Your task to perform on an android device: Find coffee shops on Maps Image 0: 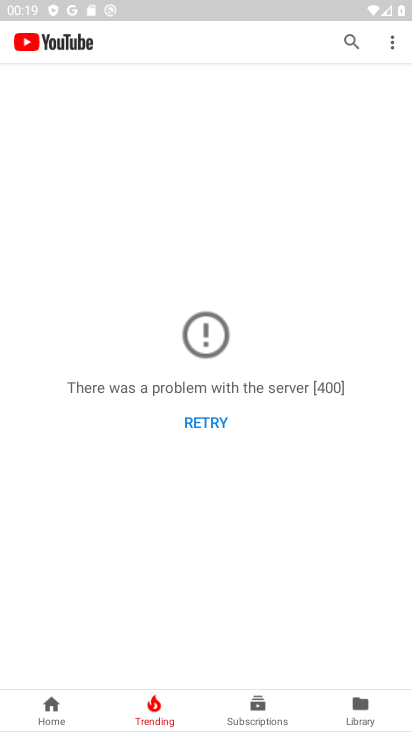
Step 0: press home button
Your task to perform on an android device: Find coffee shops on Maps Image 1: 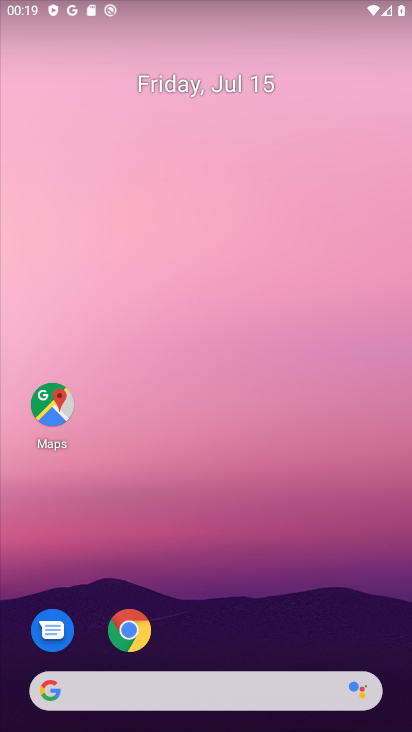
Step 1: click (58, 432)
Your task to perform on an android device: Find coffee shops on Maps Image 2: 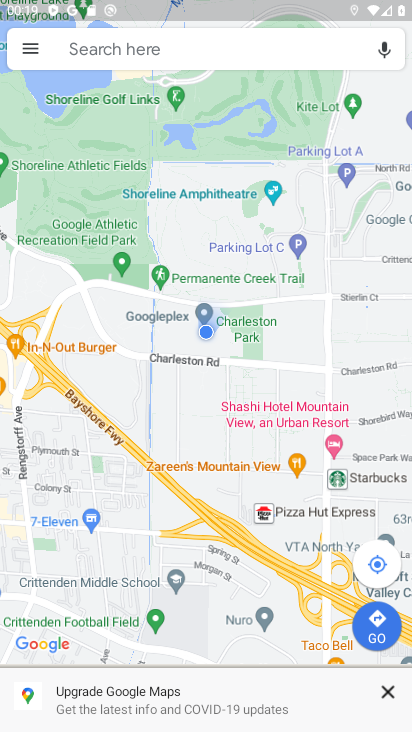
Step 2: click (91, 40)
Your task to perform on an android device: Find coffee shops on Maps Image 3: 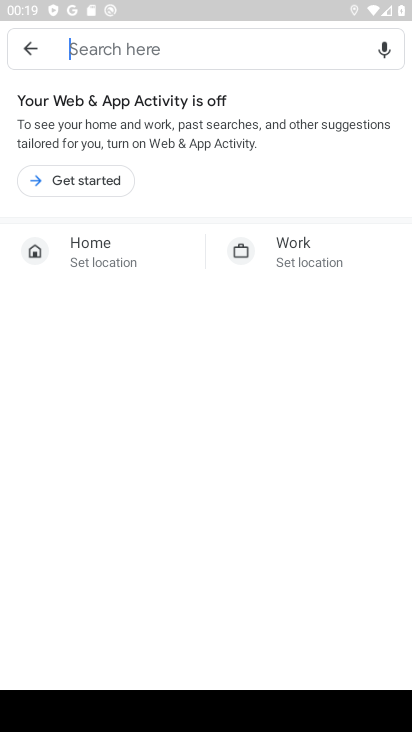
Step 3: type "coffee"
Your task to perform on an android device: Find coffee shops on Maps Image 4: 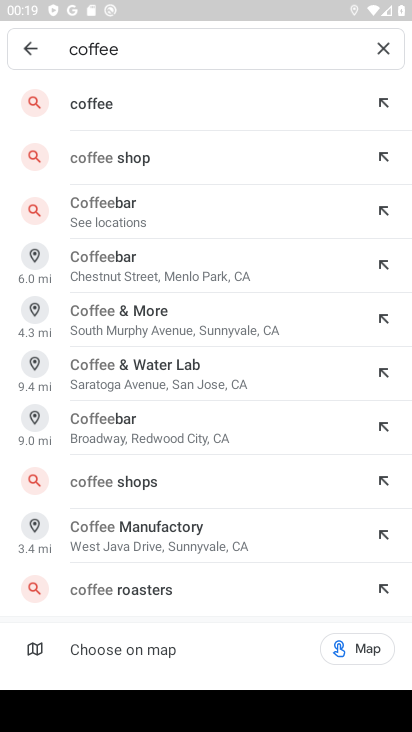
Step 4: click (127, 119)
Your task to perform on an android device: Find coffee shops on Maps Image 5: 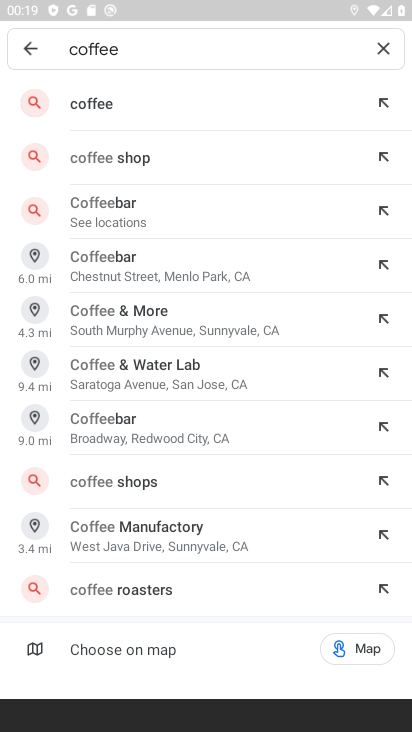
Step 5: task complete